Your task to perform on an android device: What's the weather going to be tomorrow? Image 0: 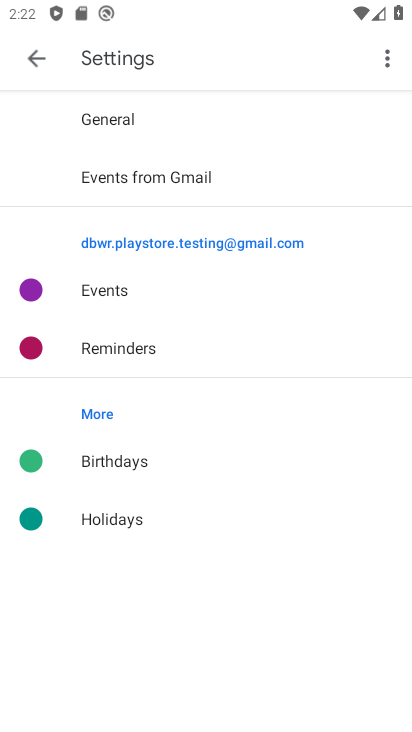
Step 0: press home button
Your task to perform on an android device: What's the weather going to be tomorrow? Image 1: 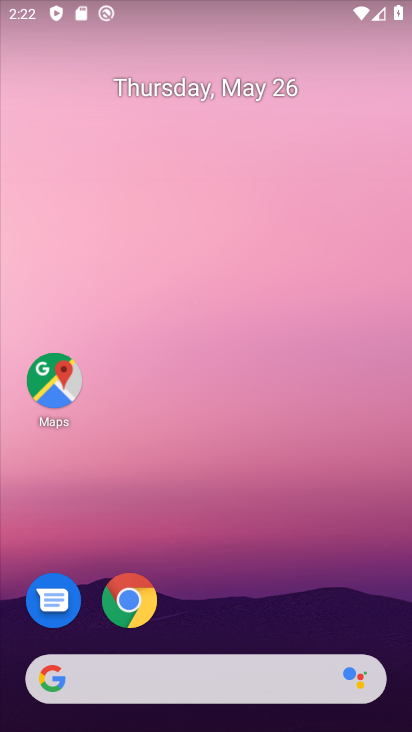
Step 1: drag from (233, 618) to (256, 205)
Your task to perform on an android device: What's the weather going to be tomorrow? Image 2: 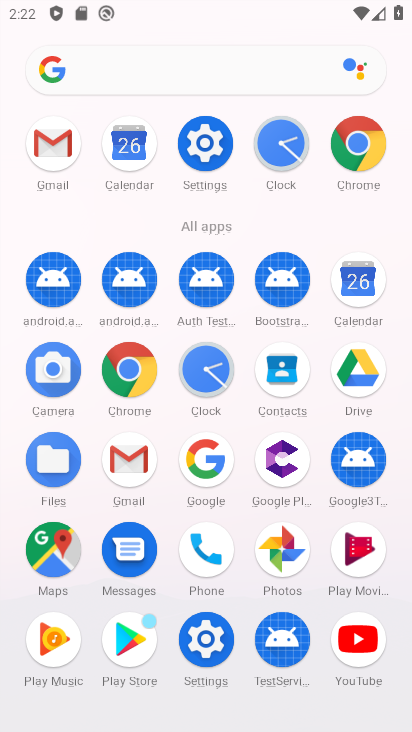
Step 2: click (221, 452)
Your task to perform on an android device: What's the weather going to be tomorrow? Image 3: 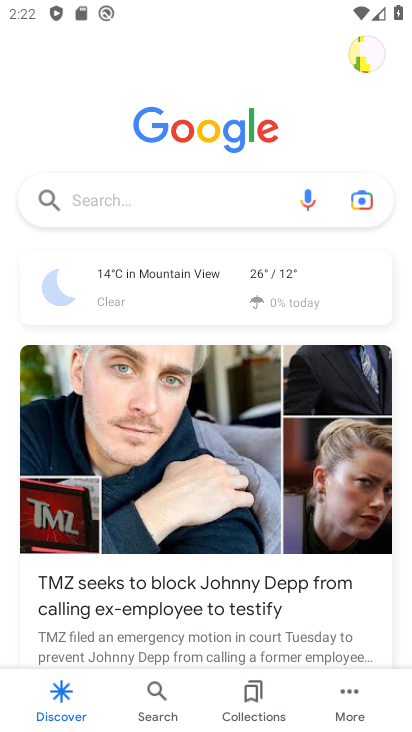
Step 3: click (119, 185)
Your task to perform on an android device: What's the weather going to be tomorrow? Image 4: 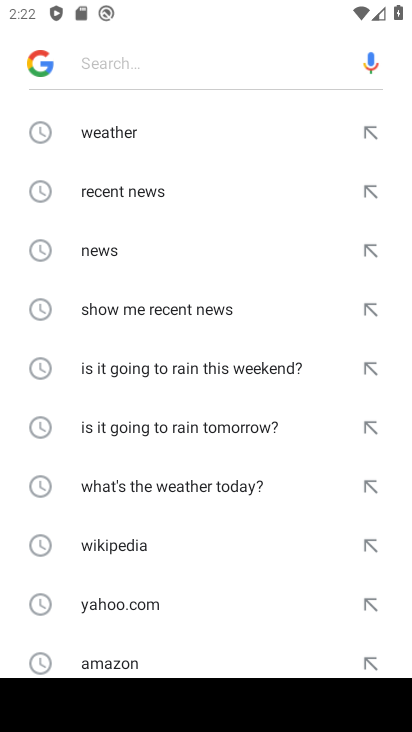
Step 4: click (121, 142)
Your task to perform on an android device: What's the weather going to be tomorrow? Image 5: 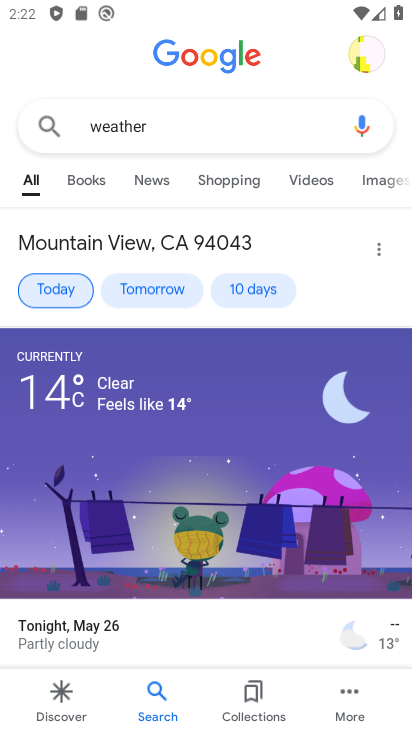
Step 5: click (170, 285)
Your task to perform on an android device: What's the weather going to be tomorrow? Image 6: 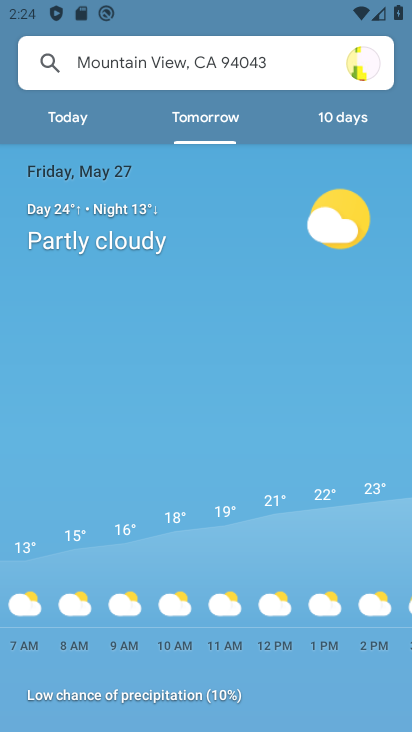
Step 6: task complete